Your task to perform on an android device: change the clock display to analog Image 0: 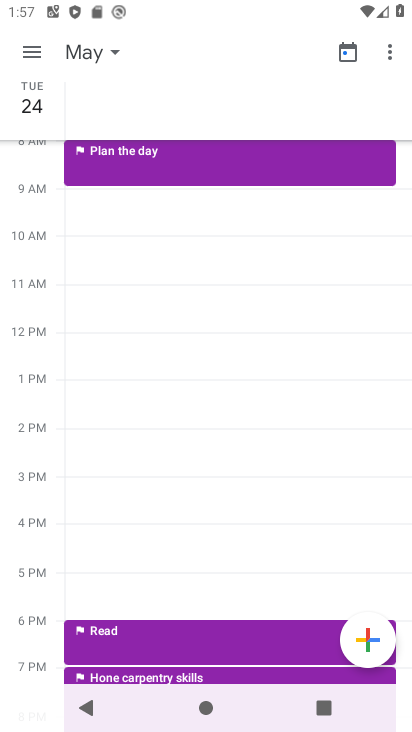
Step 0: press home button
Your task to perform on an android device: change the clock display to analog Image 1: 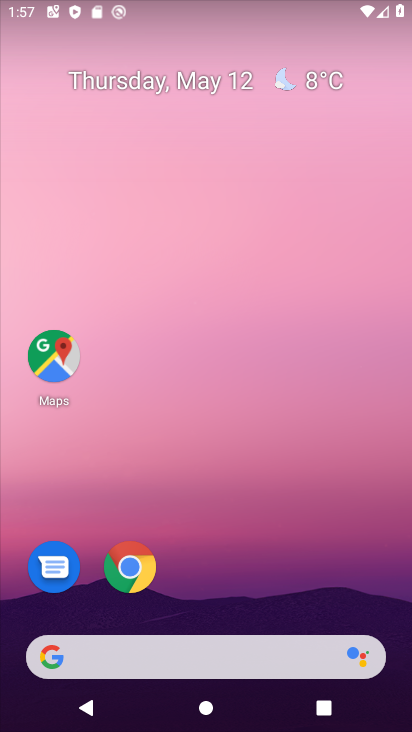
Step 1: drag from (214, 617) to (218, 113)
Your task to perform on an android device: change the clock display to analog Image 2: 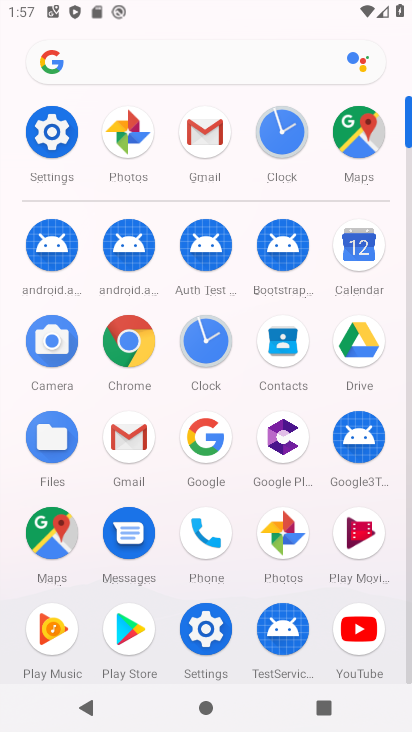
Step 2: click (281, 125)
Your task to perform on an android device: change the clock display to analog Image 3: 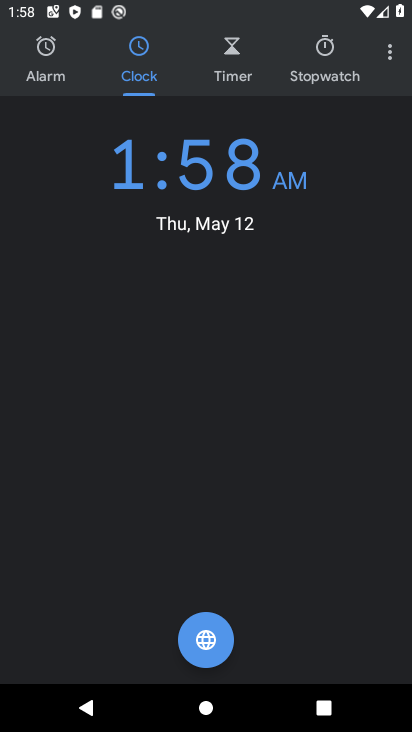
Step 3: click (389, 54)
Your task to perform on an android device: change the clock display to analog Image 4: 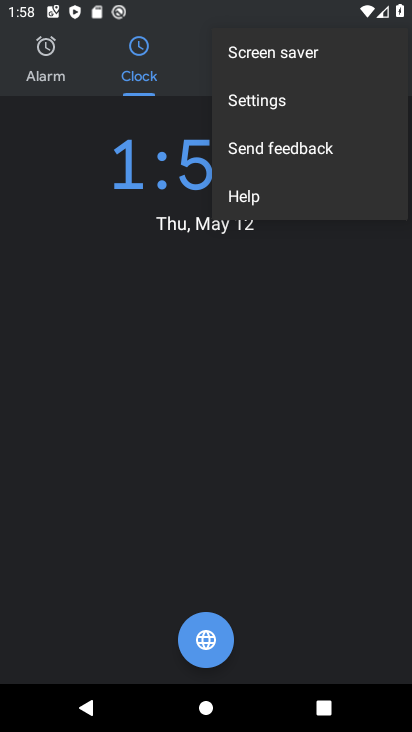
Step 4: click (263, 99)
Your task to perform on an android device: change the clock display to analog Image 5: 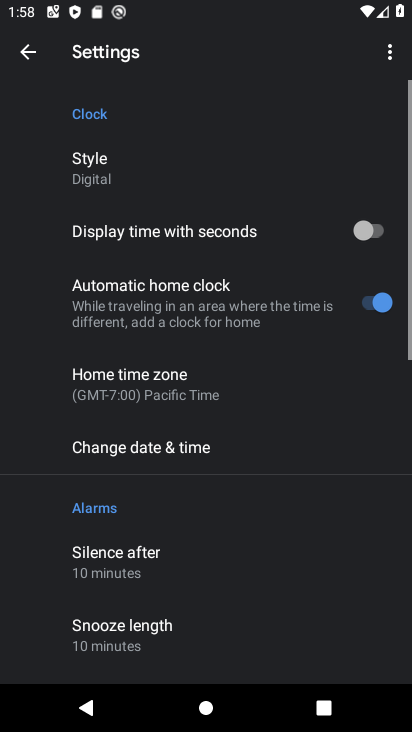
Step 5: click (116, 168)
Your task to perform on an android device: change the clock display to analog Image 6: 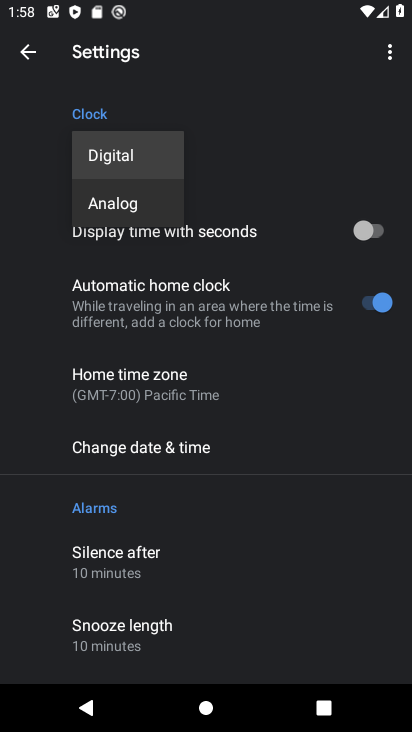
Step 6: click (132, 205)
Your task to perform on an android device: change the clock display to analog Image 7: 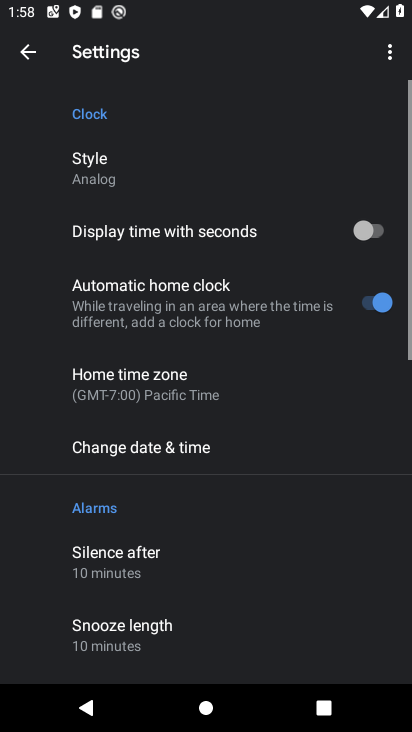
Step 7: task complete